Your task to perform on an android device: Open Google Maps Image 0: 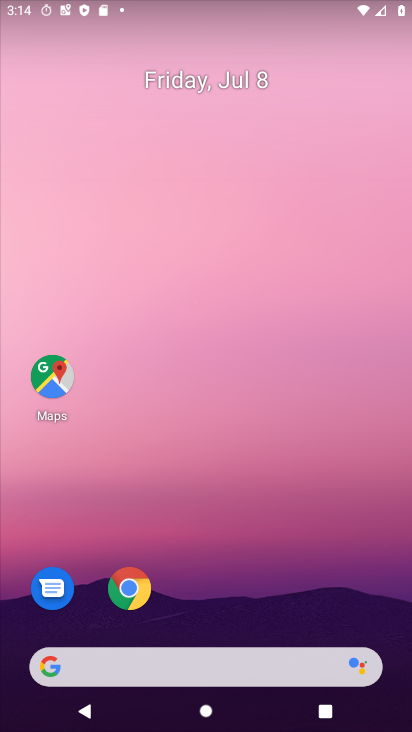
Step 0: press home button
Your task to perform on an android device: Open Google Maps Image 1: 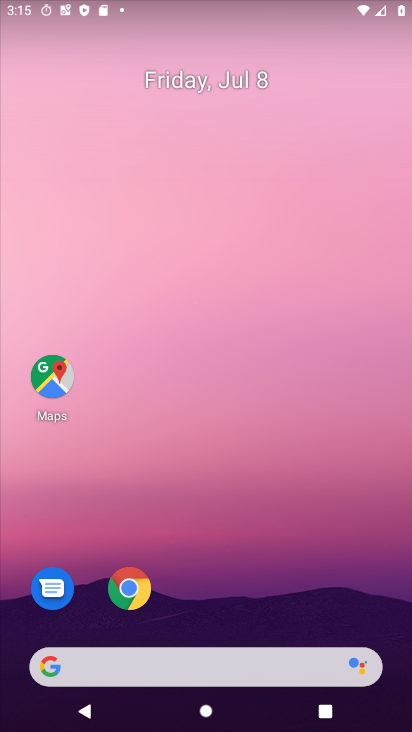
Step 1: drag from (278, 608) to (362, 176)
Your task to perform on an android device: Open Google Maps Image 2: 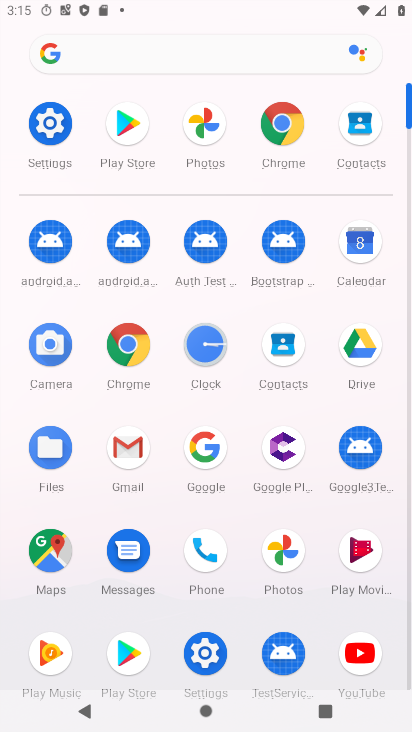
Step 2: click (48, 551)
Your task to perform on an android device: Open Google Maps Image 3: 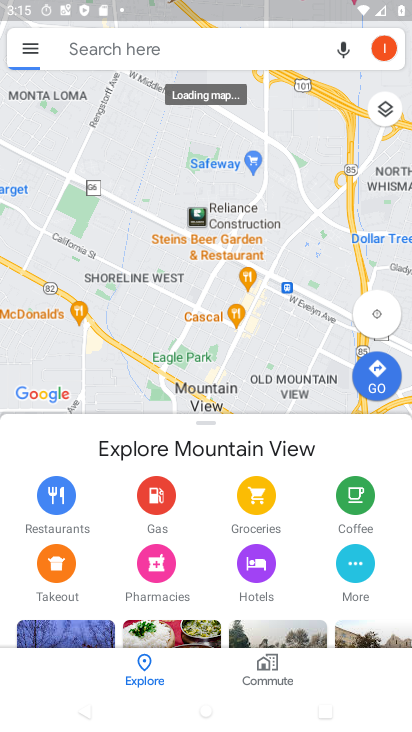
Step 3: task complete